Your task to perform on an android device: check out phone information Image 0: 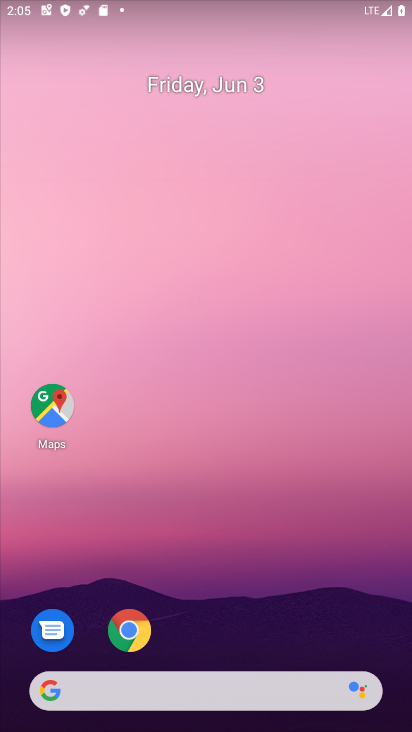
Step 0: drag from (236, 717) to (232, 81)
Your task to perform on an android device: check out phone information Image 1: 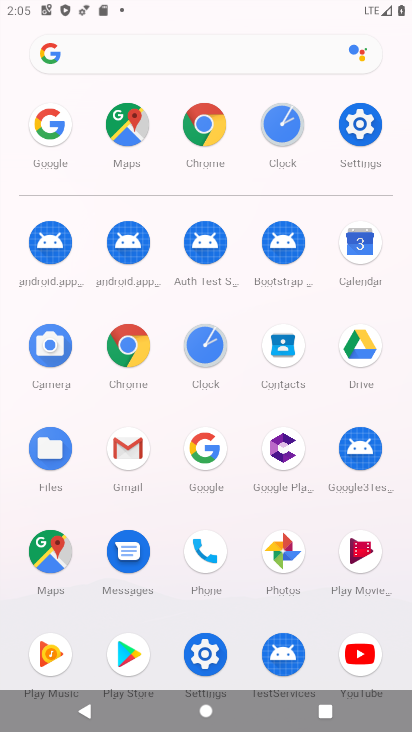
Step 1: click (361, 124)
Your task to perform on an android device: check out phone information Image 2: 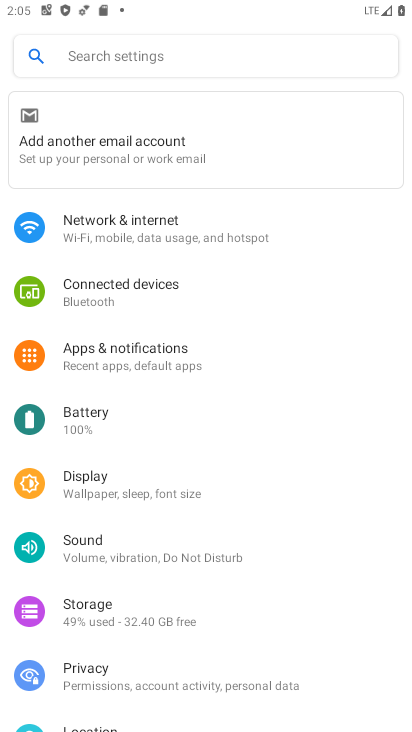
Step 2: drag from (181, 666) to (176, 179)
Your task to perform on an android device: check out phone information Image 3: 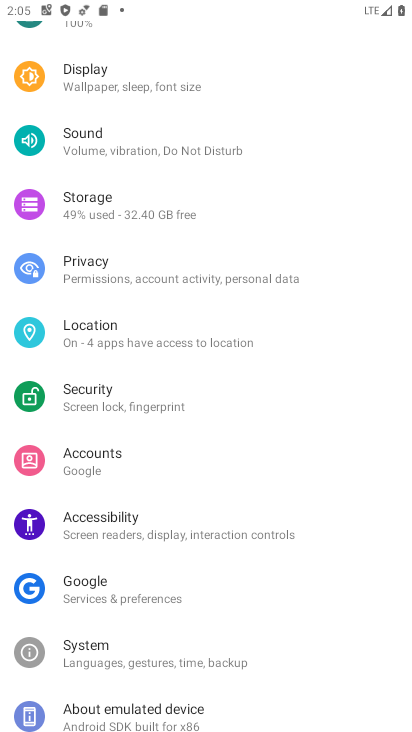
Step 3: drag from (175, 712) to (174, 218)
Your task to perform on an android device: check out phone information Image 4: 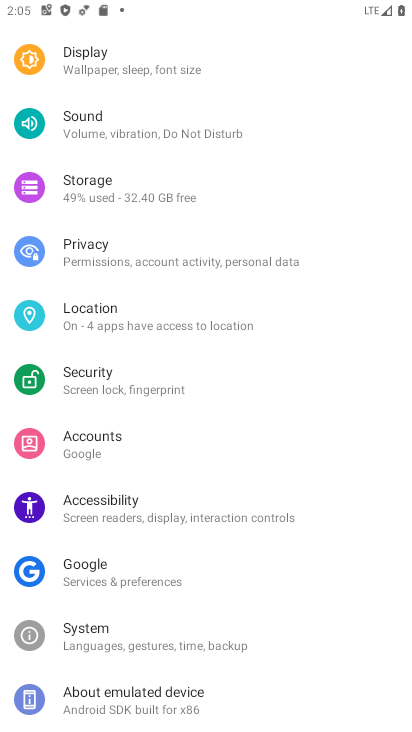
Step 4: click (114, 697)
Your task to perform on an android device: check out phone information Image 5: 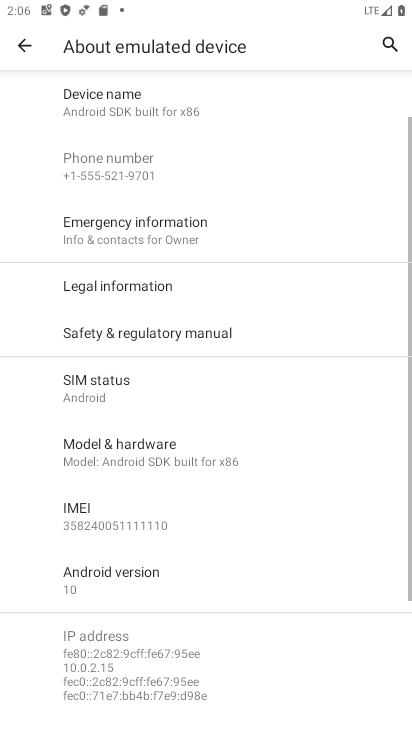
Step 5: task complete